Your task to perform on an android device: change the clock style Image 0: 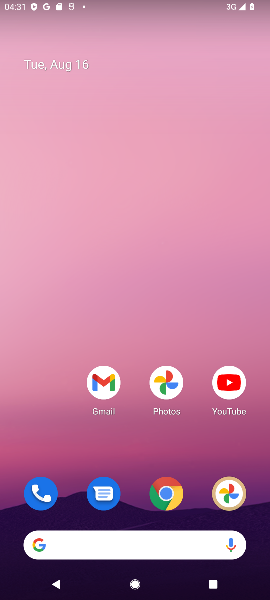
Step 0: press home button
Your task to perform on an android device: change the clock style Image 1: 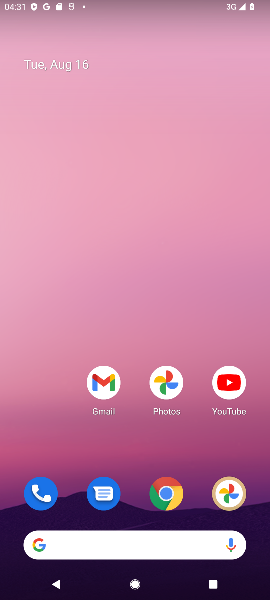
Step 1: drag from (73, 490) to (63, 216)
Your task to perform on an android device: change the clock style Image 2: 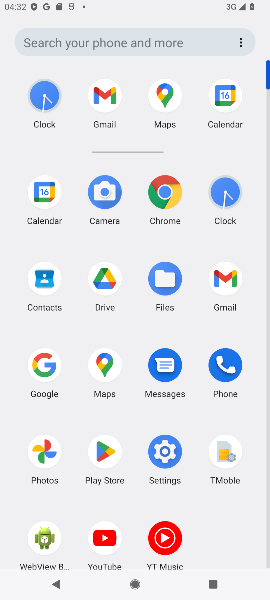
Step 2: click (227, 187)
Your task to perform on an android device: change the clock style Image 3: 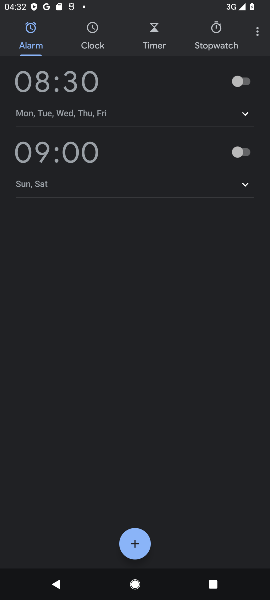
Step 3: click (258, 29)
Your task to perform on an android device: change the clock style Image 4: 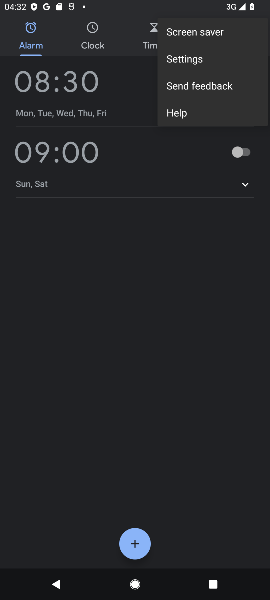
Step 4: click (214, 62)
Your task to perform on an android device: change the clock style Image 5: 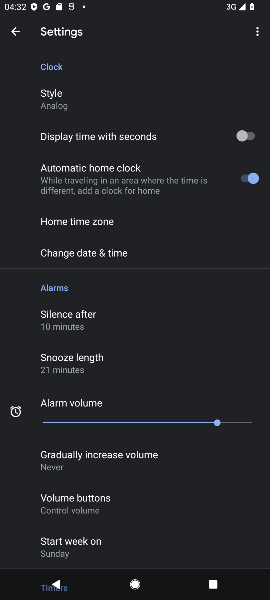
Step 5: drag from (230, 382) to (225, 302)
Your task to perform on an android device: change the clock style Image 6: 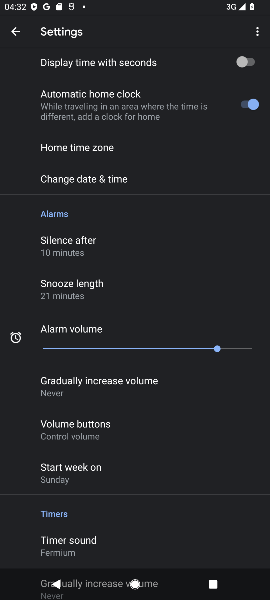
Step 6: drag from (217, 417) to (234, 316)
Your task to perform on an android device: change the clock style Image 7: 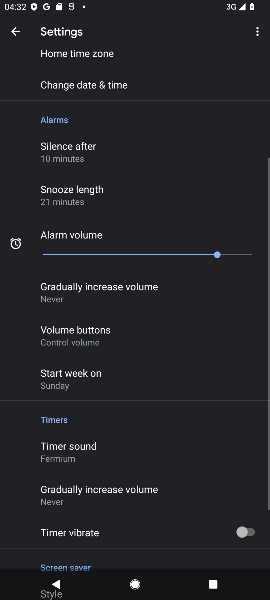
Step 7: drag from (228, 419) to (229, 327)
Your task to perform on an android device: change the clock style Image 8: 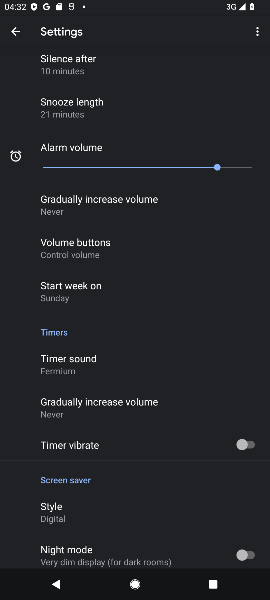
Step 8: drag from (189, 465) to (198, 326)
Your task to perform on an android device: change the clock style Image 9: 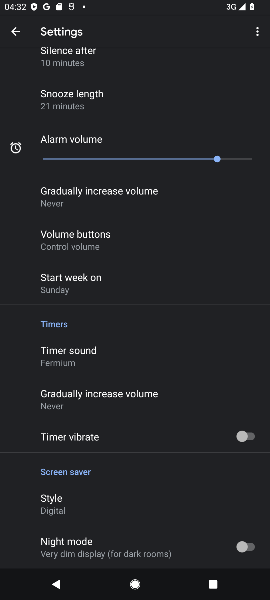
Step 9: drag from (202, 235) to (214, 340)
Your task to perform on an android device: change the clock style Image 10: 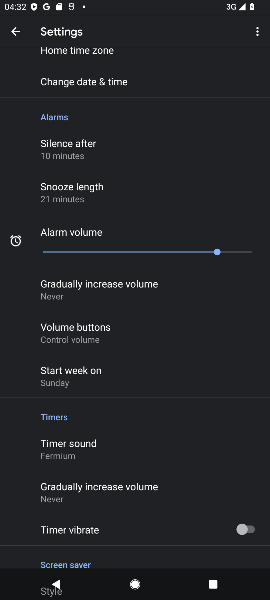
Step 10: drag from (218, 141) to (228, 280)
Your task to perform on an android device: change the clock style Image 11: 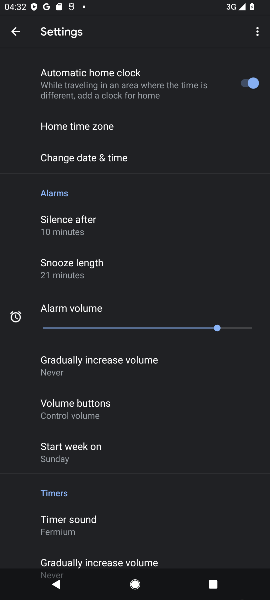
Step 11: drag from (224, 141) to (239, 277)
Your task to perform on an android device: change the clock style Image 12: 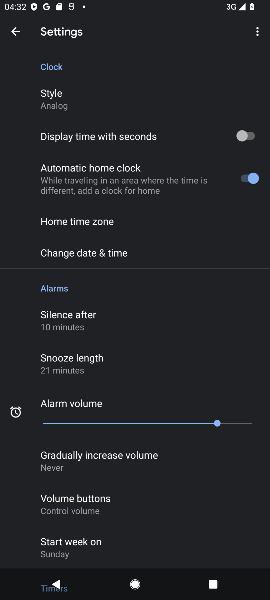
Step 12: drag from (195, 105) to (207, 259)
Your task to perform on an android device: change the clock style Image 13: 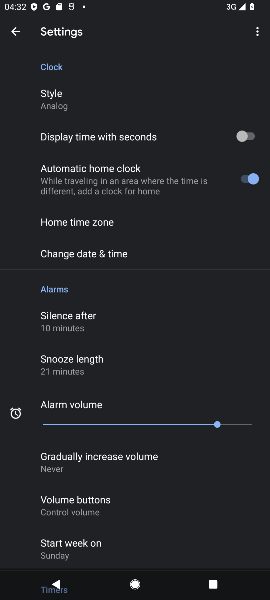
Step 13: click (100, 95)
Your task to perform on an android device: change the clock style Image 14: 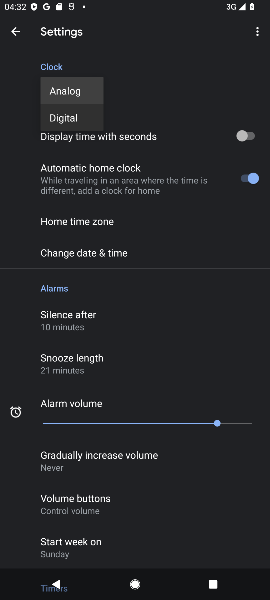
Step 14: click (82, 120)
Your task to perform on an android device: change the clock style Image 15: 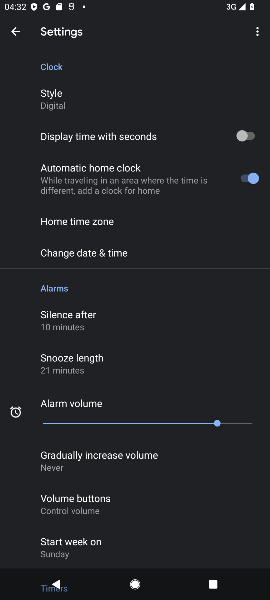
Step 15: task complete